Your task to perform on an android device: clear all cookies in the chrome app Image 0: 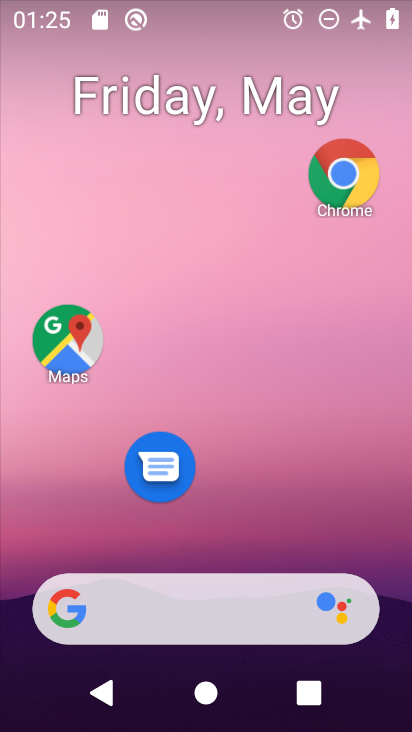
Step 0: drag from (281, 510) to (318, 180)
Your task to perform on an android device: clear all cookies in the chrome app Image 1: 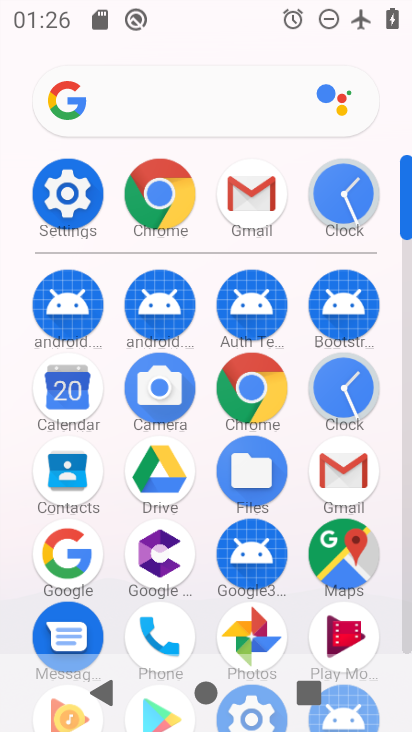
Step 1: click (244, 393)
Your task to perform on an android device: clear all cookies in the chrome app Image 2: 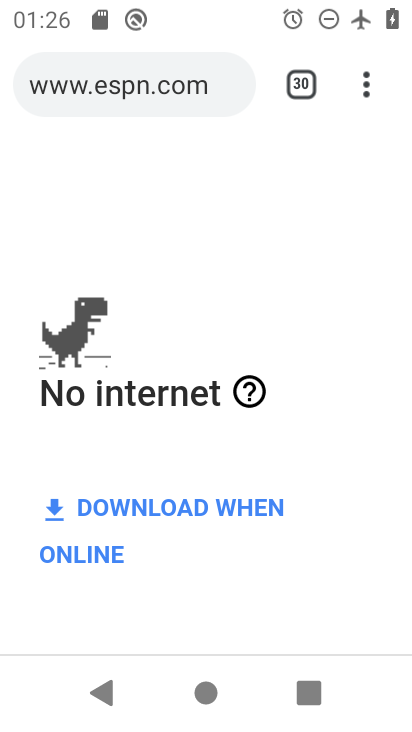
Step 2: click (384, 83)
Your task to perform on an android device: clear all cookies in the chrome app Image 3: 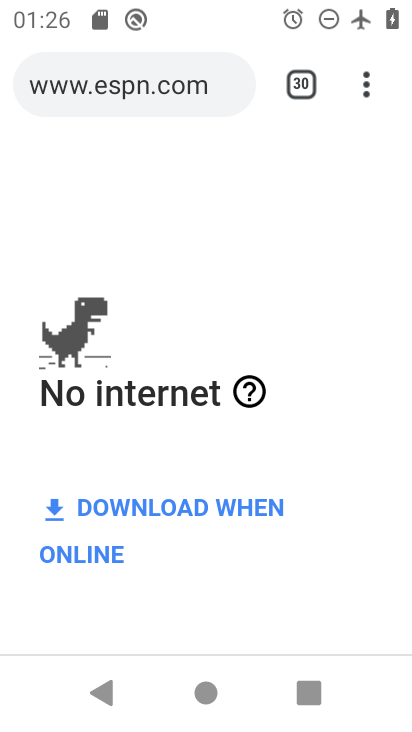
Step 3: click (377, 71)
Your task to perform on an android device: clear all cookies in the chrome app Image 4: 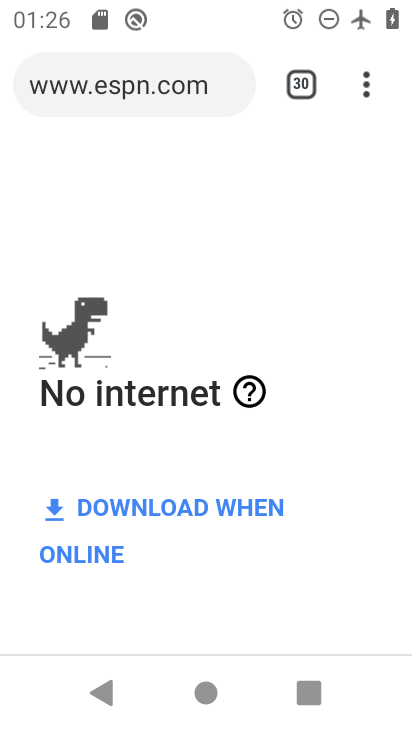
Step 4: click (364, 73)
Your task to perform on an android device: clear all cookies in the chrome app Image 5: 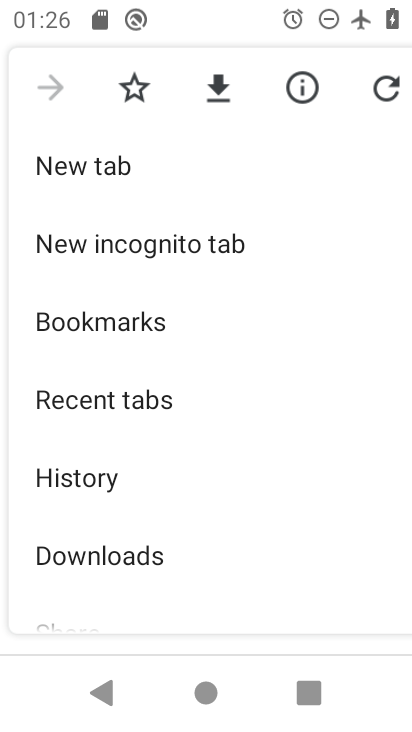
Step 5: drag from (195, 499) to (271, 212)
Your task to perform on an android device: clear all cookies in the chrome app Image 6: 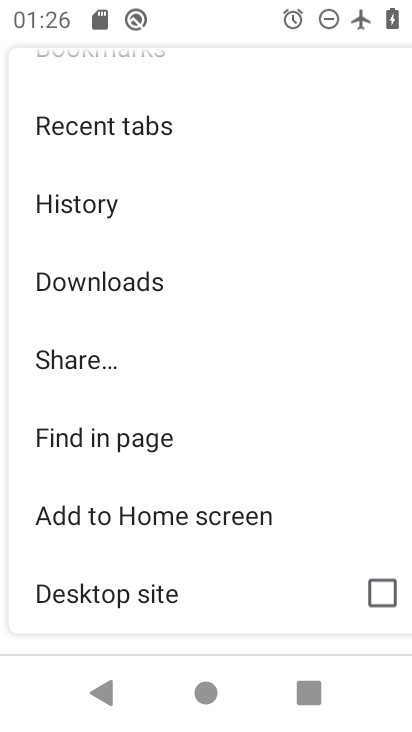
Step 6: drag from (200, 513) to (256, 300)
Your task to perform on an android device: clear all cookies in the chrome app Image 7: 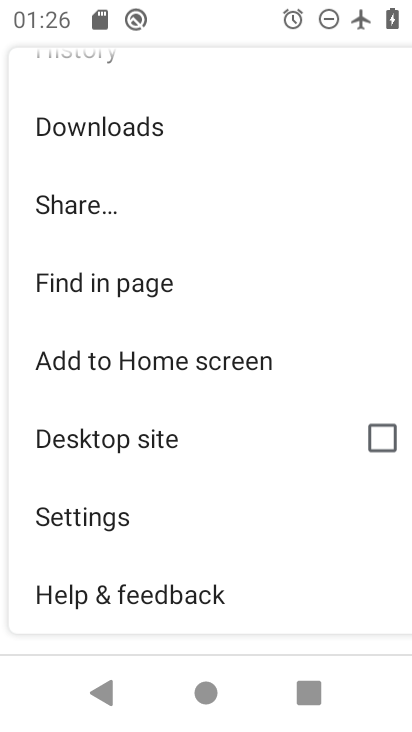
Step 7: click (101, 517)
Your task to perform on an android device: clear all cookies in the chrome app Image 8: 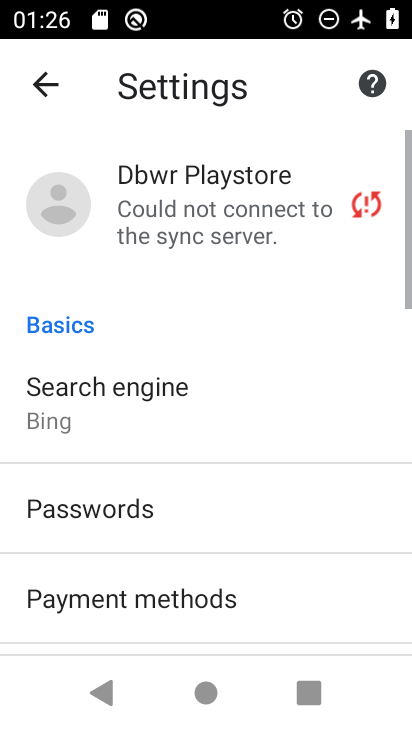
Step 8: drag from (128, 514) to (239, 184)
Your task to perform on an android device: clear all cookies in the chrome app Image 9: 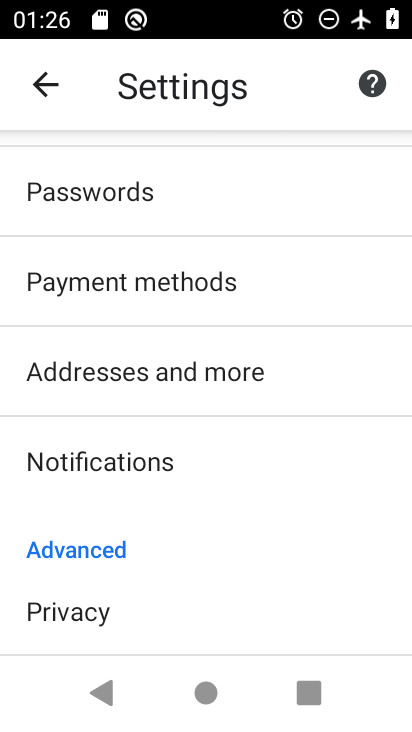
Step 9: click (83, 611)
Your task to perform on an android device: clear all cookies in the chrome app Image 10: 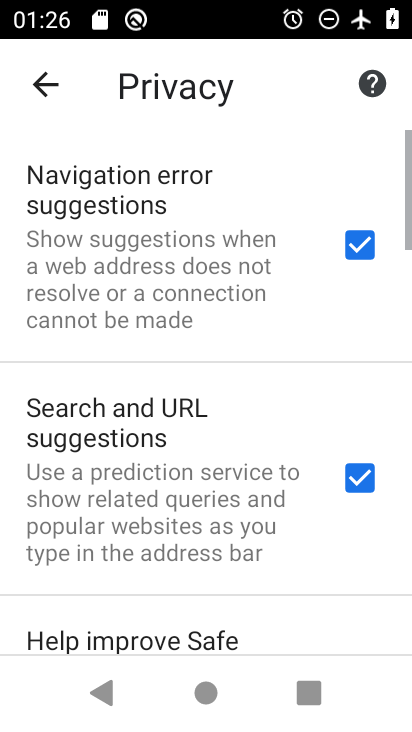
Step 10: drag from (172, 582) to (317, 89)
Your task to perform on an android device: clear all cookies in the chrome app Image 11: 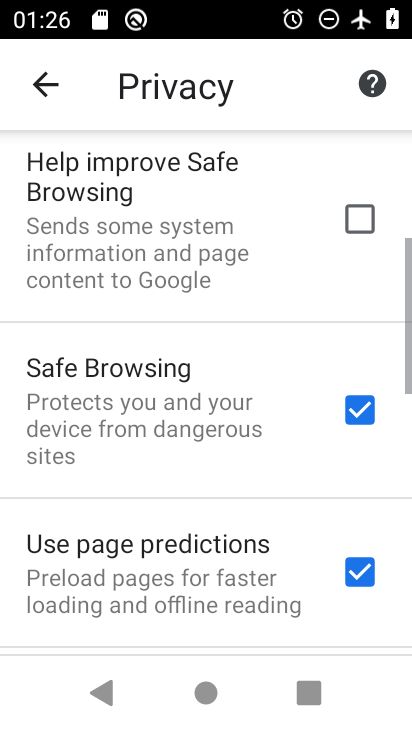
Step 11: drag from (241, 569) to (336, 168)
Your task to perform on an android device: clear all cookies in the chrome app Image 12: 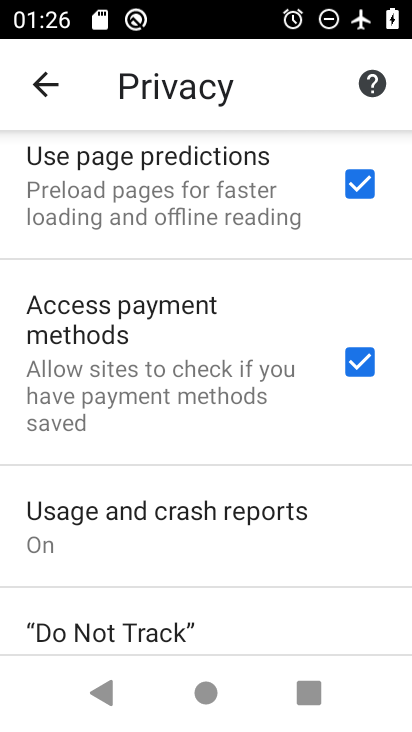
Step 12: drag from (230, 495) to (285, 175)
Your task to perform on an android device: clear all cookies in the chrome app Image 13: 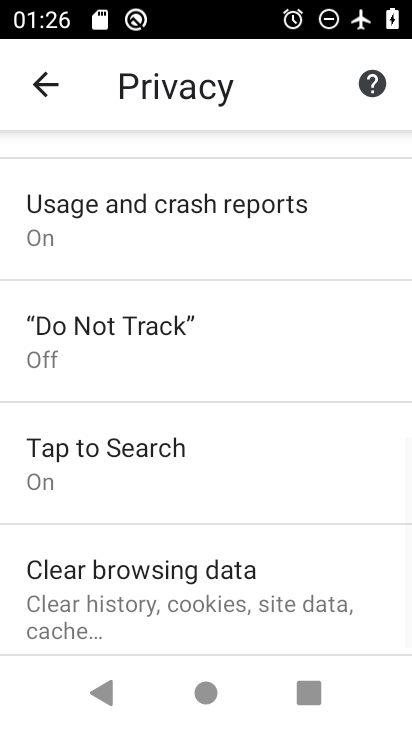
Step 13: drag from (236, 539) to (289, 305)
Your task to perform on an android device: clear all cookies in the chrome app Image 14: 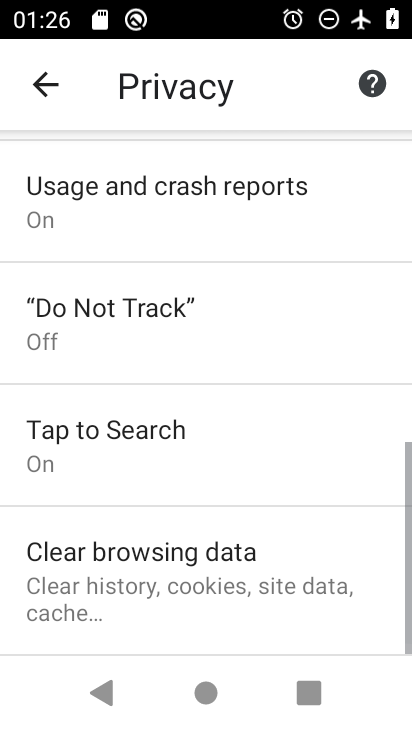
Step 14: click (216, 590)
Your task to perform on an android device: clear all cookies in the chrome app Image 15: 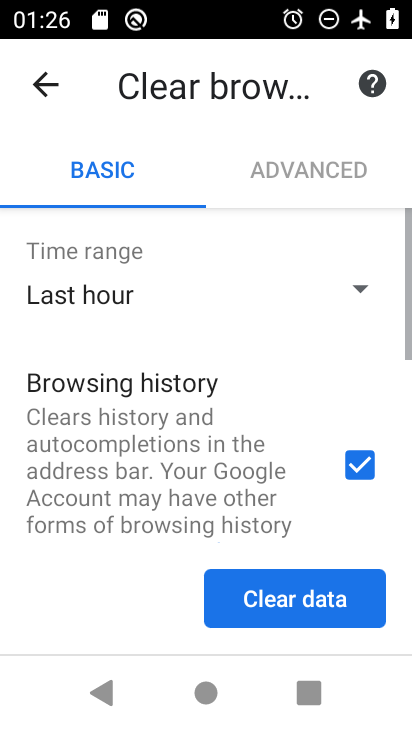
Step 15: click (302, 581)
Your task to perform on an android device: clear all cookies in the chrome app Image 16: 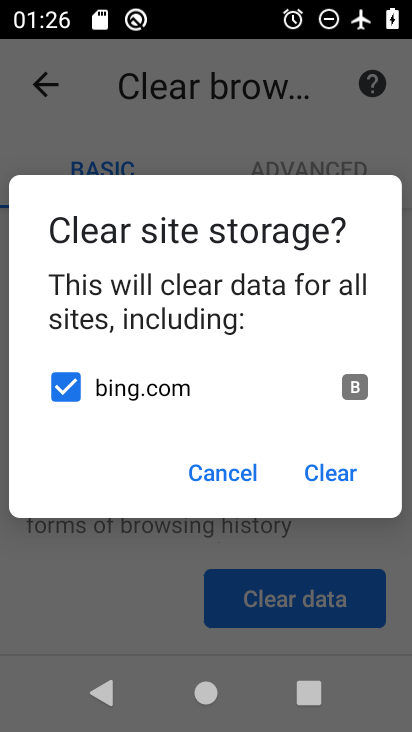
Step 16: click (319, 481)
Your task to perform on an android device: clear all cookies in the chrome app Image 17: 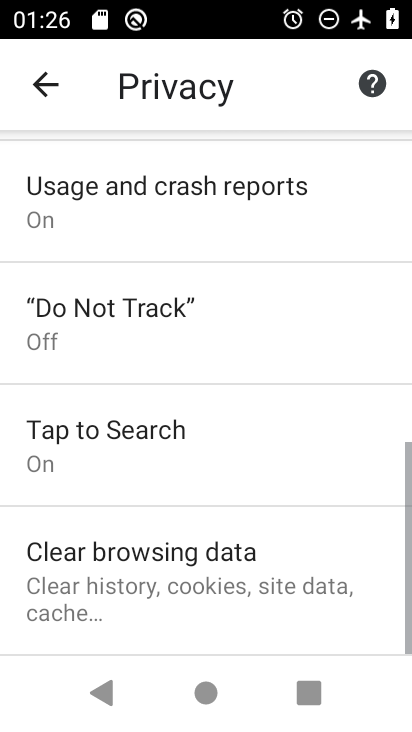
Step 17: task complete